Your task to perform on an android device: open a new tab in the chrome app Image 0: 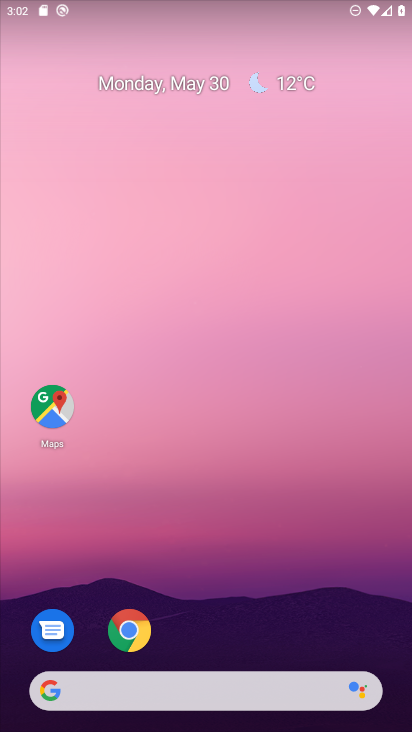
Step 0: click (123, 633)
Your task to perform on an android device: open a new tab in the chrome app Image 1: 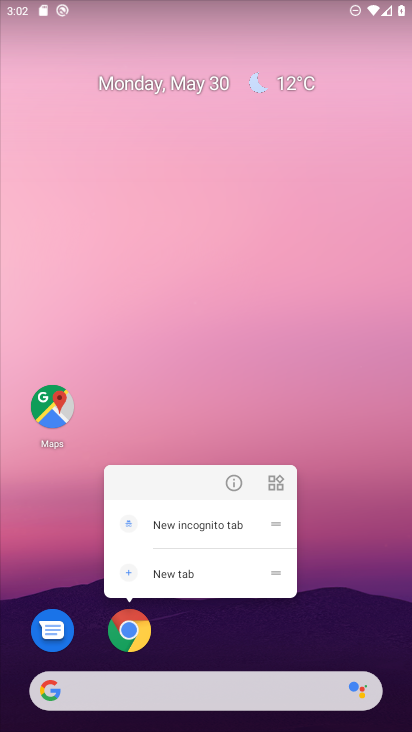
Step 1: click (123, 633)
Your task to perform on an android device: open a new tab in the chrome app Image 2: 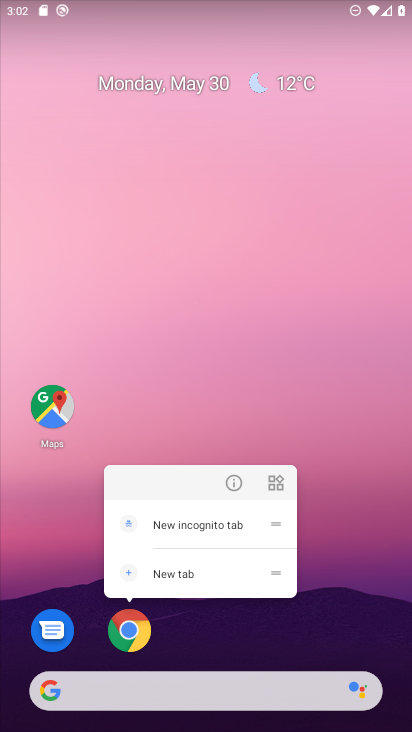
Step 2: click (164, 582)
Your task to perform on an android device: open a new tab in the chrome app Image 3: 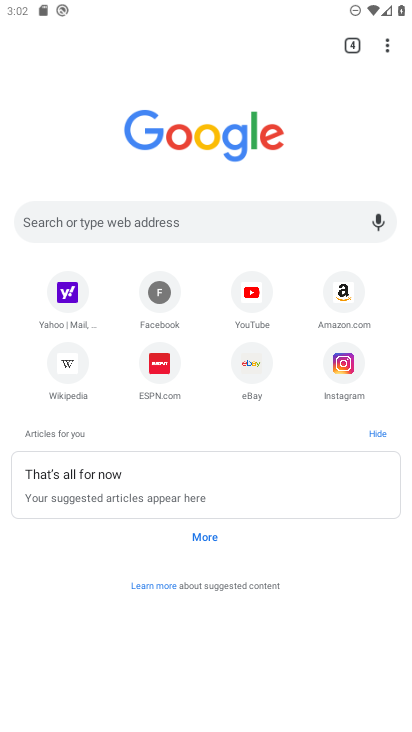
Step 3: task complete